Your task to perform on an android device: turn off location Image 0: 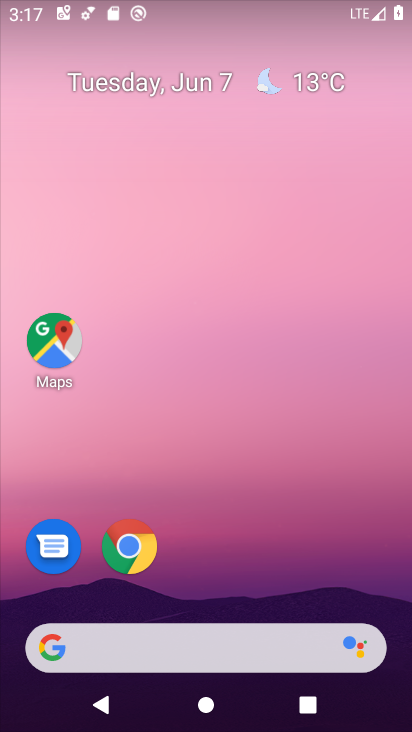
Step 0: drag from (275, 577) to (294, 156)
Your task to perform on an android device: turn off location Image 1: 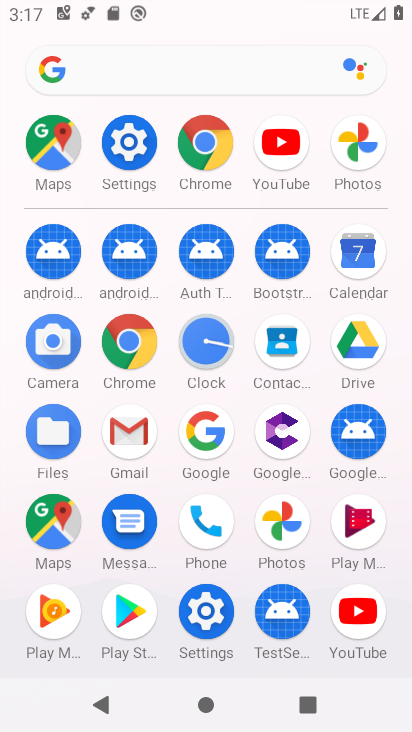
Step 1: click (209, 609)
Your task to perform on an android device: turn off location Image 2: 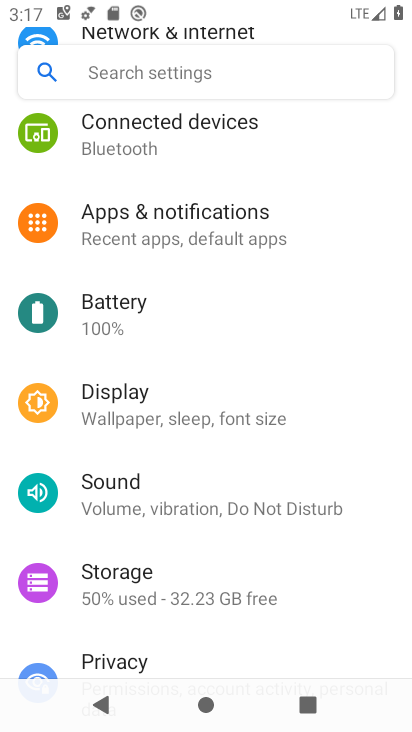
Step 2: drag from (354, 181) to (341, 318)
Your task to perform on an android device: turn off location Image 3: 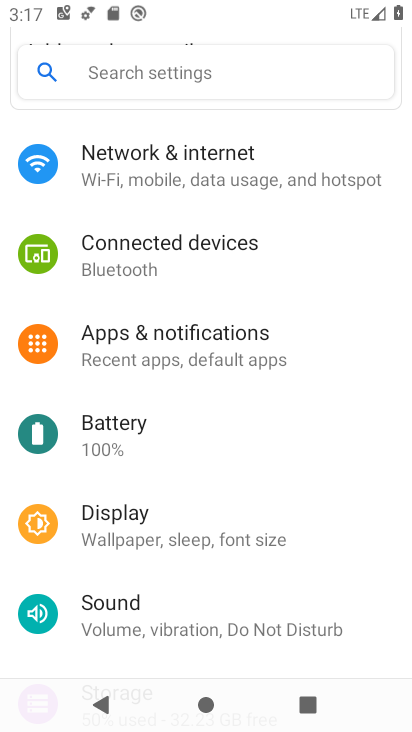
Step 3: drag from (330, 228) to (336, 330)
Your task to perform on an android device: turn off location Image 4: 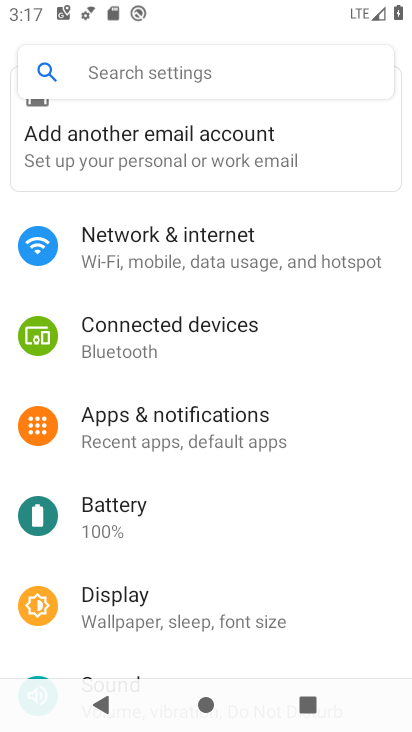
Step 4: drag from (355, 441) to (360, 324)
Your task to perform on an android device: turn off location Image 5: 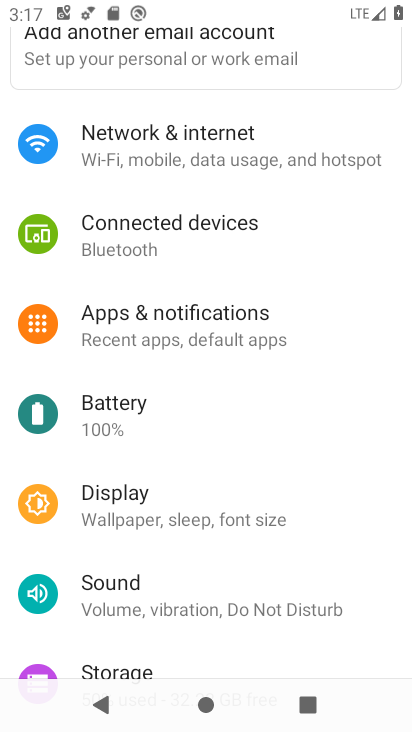
Step 5: drag from (351, 444) to (350, 306)
Your task to perform on an android device: turn off location Image 6: 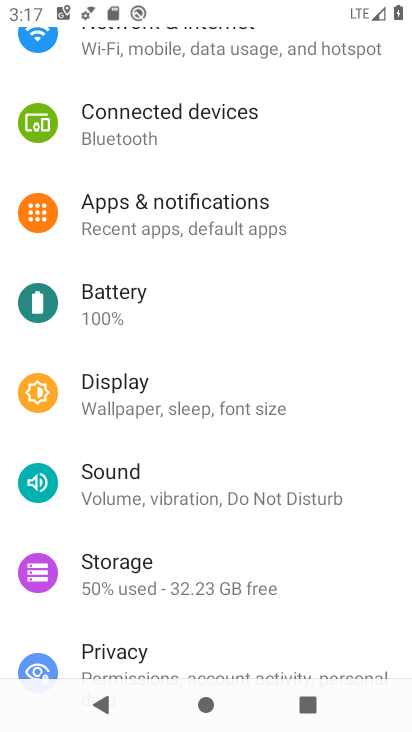
Step 6: drag from (370, 560) to (357, 407)
Your task to perform on an android device: turn off location Image 7: 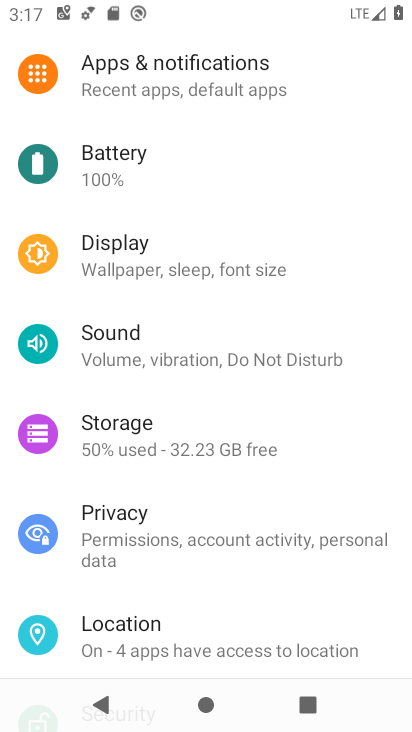
Step 7: drag from (296, 357) to (301, 190)
Your task to perform on an android device: turn off location Image 8: 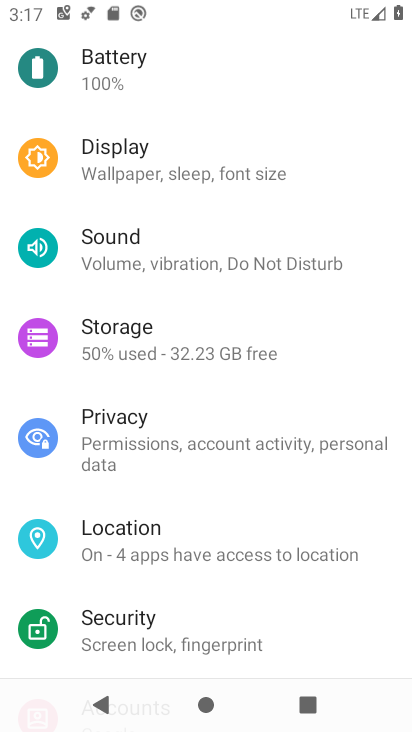
Step 8: click (235, 544)
Your task to perform on an android device: turn off location Image 9: 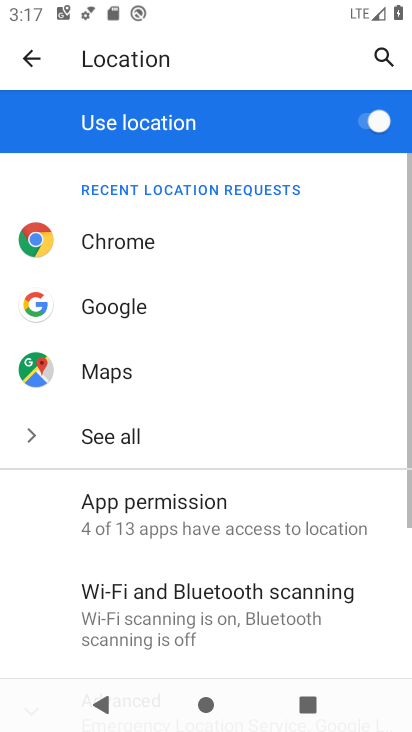
Step 9: click (385, 119)
Your task to perform on an android device: turn off location Image 10: 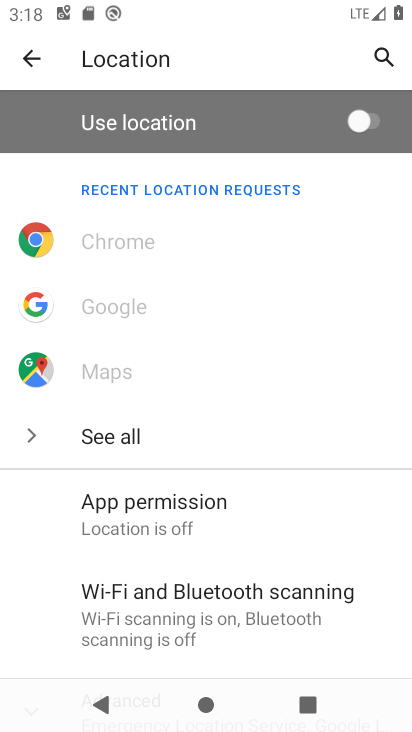
Step 10: task complete